Your task to perform on an android device: Check the weather Image 0: 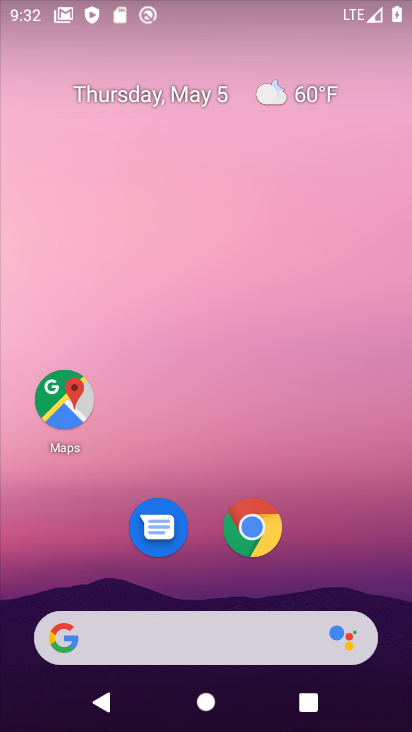
Step 0: drag from (305, 593) to (376, 180)
Your task to perform on an android device: Check the weather Image 1: 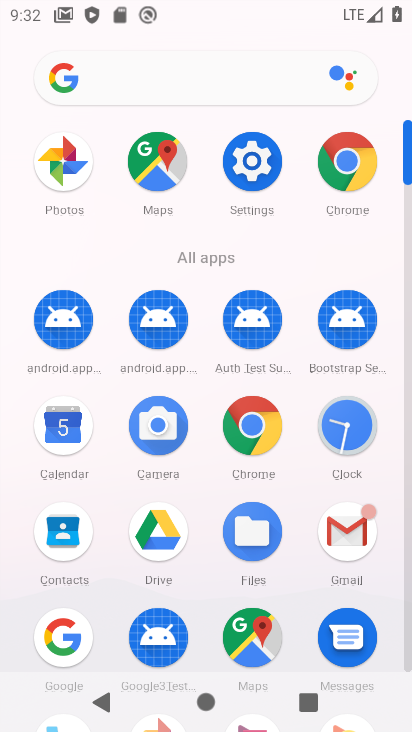
Step 1: click (65, 642)
Your task to perform on an android device: Check the weather Image 2: 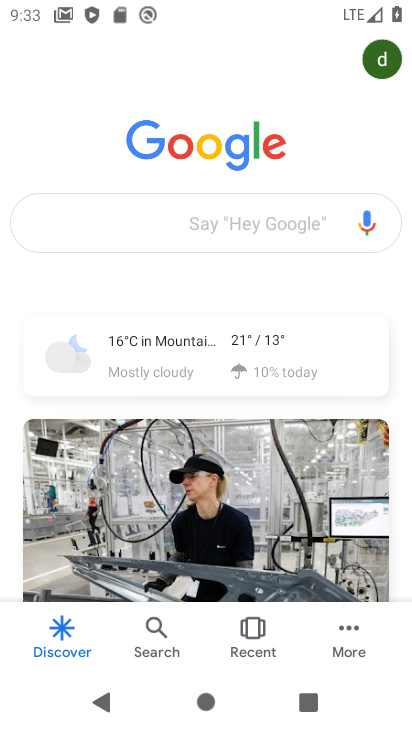
Step 2: click (164, 192)
Your task to perform on an android device: Check the weather Image 3: 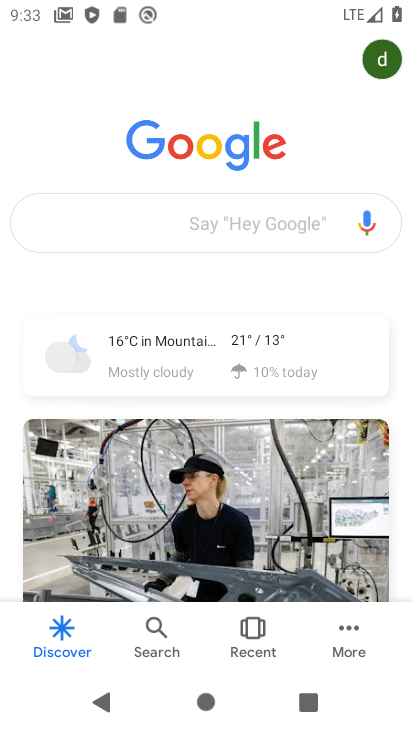
Step 3: click (186, 221)
Your task to perform on an android device: Check the weather Image 4: 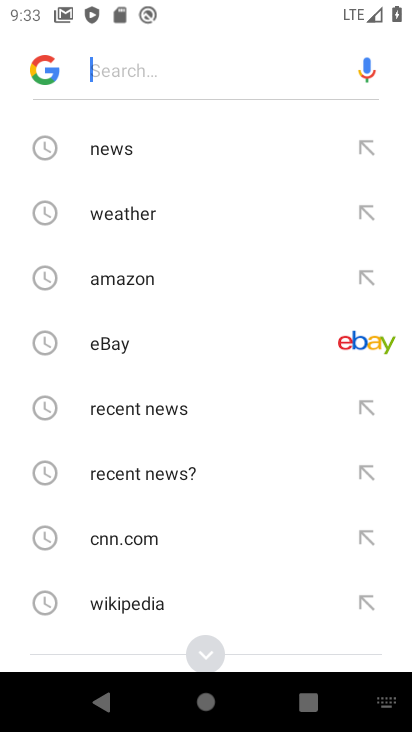
Step 4: click (185, 221)
Your task to perform on an android device: Check the weather Image 5: 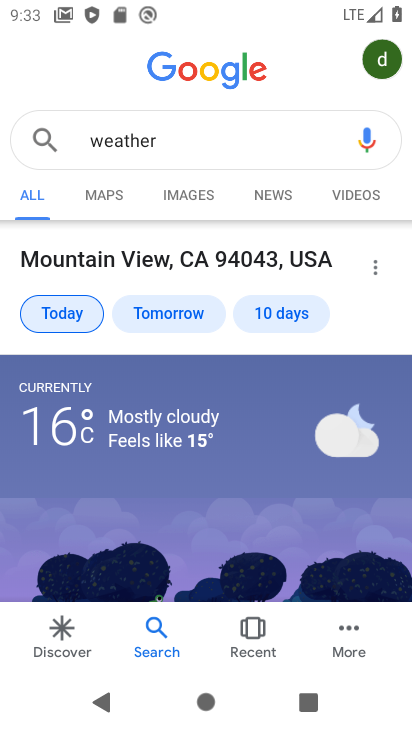
Step 5: task complete